Your task to perform on an android device: Open sound settings Image 0: 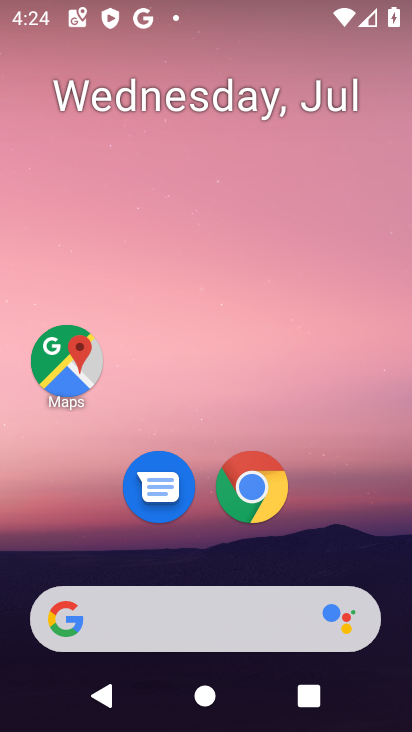
Step 0: drag from (200, 500) to (290, 14)
Your task to perform on an android device: Open sound settings Image 1: 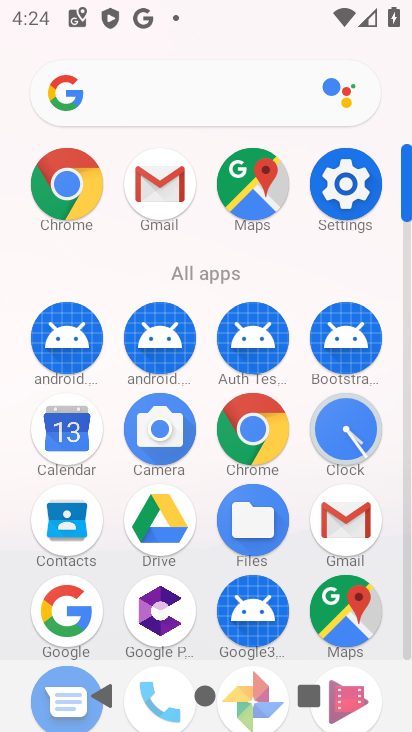
Step 1: click (347, 183)
Your task to perform on an android device: Open sound settings Image 2: 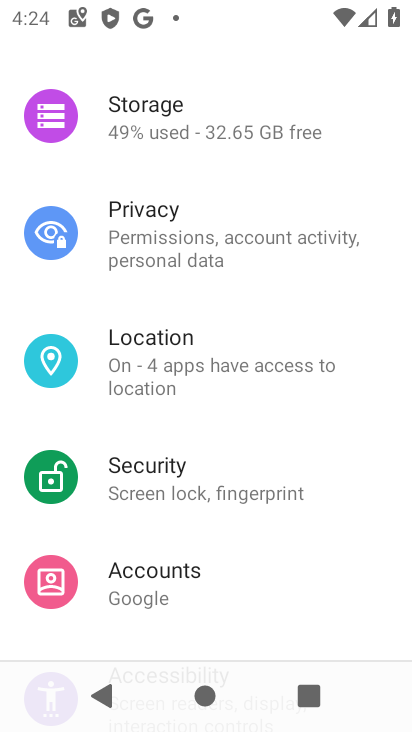
Step 2: drag from (212, 171) to (190, 730)
Your task to perform on an android device: Open sound settings Image 3: 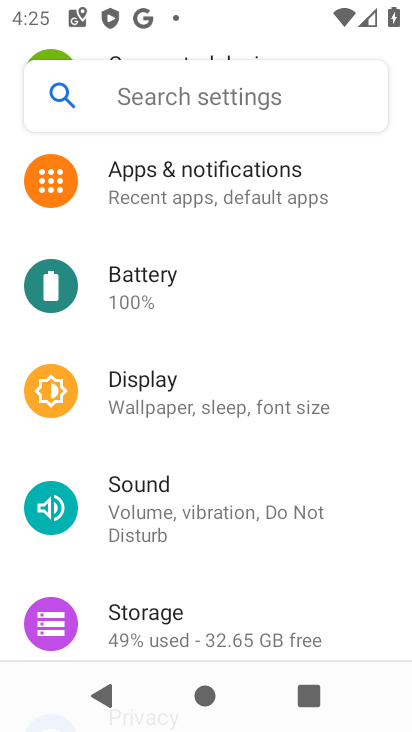
Step 3: click (175, 505)
Your task to perform on an android device: Open sound settings Image 4: 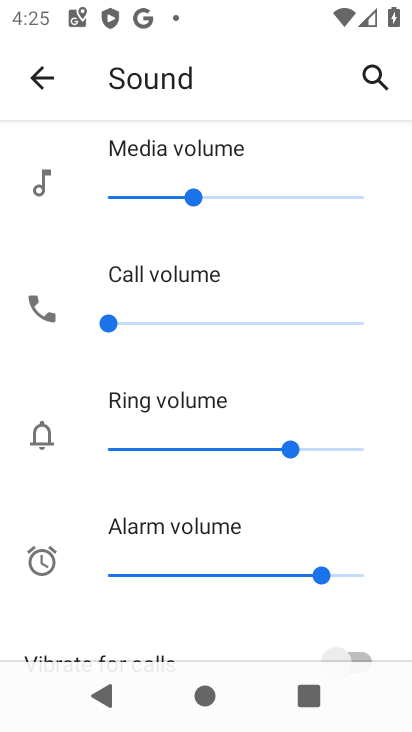
Step 4: task complete